Your task to perform on an android device: Open ESPN.com Image 0: 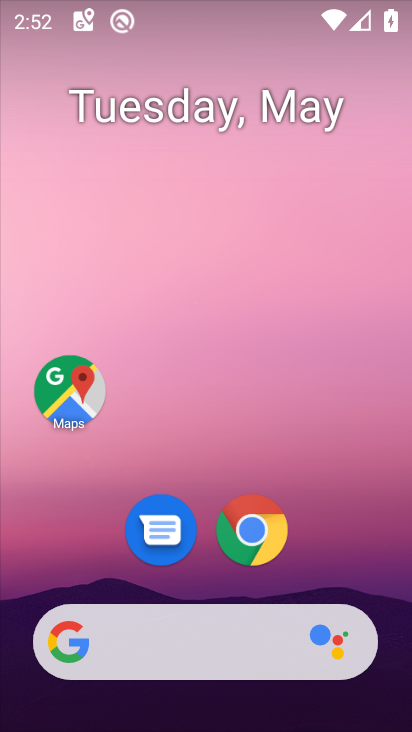
Step 0: click (264, 534)
Your task to perform on an android device: Open ESPN.com Image 1: 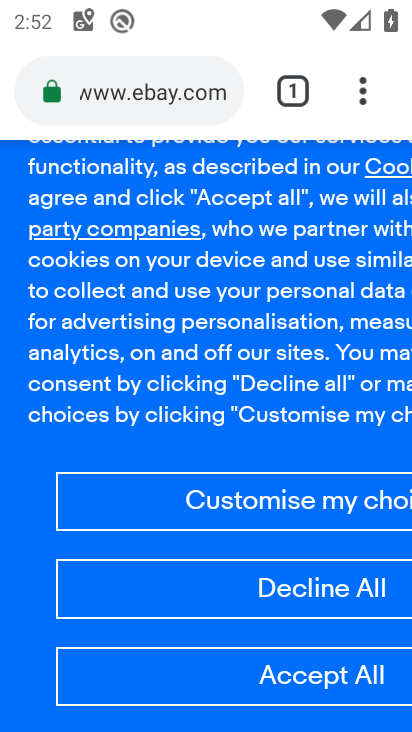
Step 1: click (286, 99)
Your task to perform on an android device: Open ESPN.com Image 2: 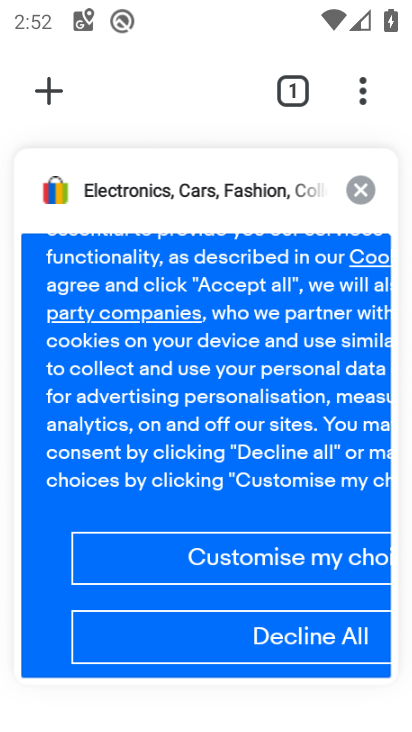
Step 2: click (53, 93)
Your task to perform on an android device: Open ESPN.com Image 3: 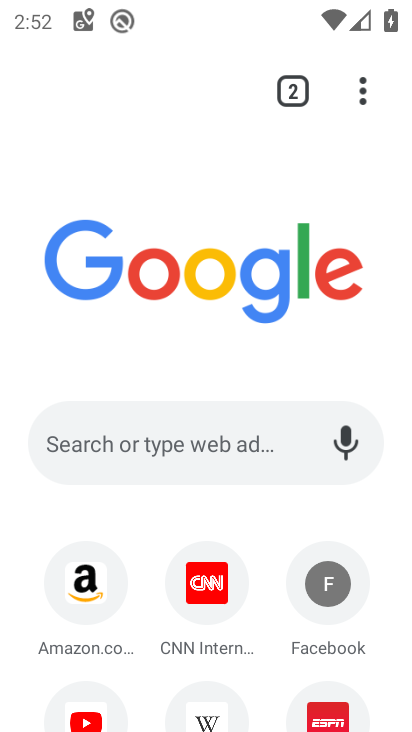
Step 3: drag from (0, 693) to (240, 289)
Your task to perform on an android device: Open ESPN.com Image 4: 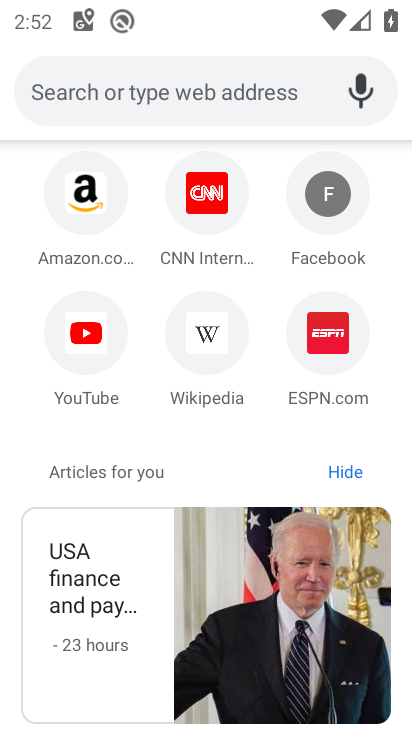
Step 4: click (312, 572)
Your task to perform on an android device: Open ESPN.com Image 5: 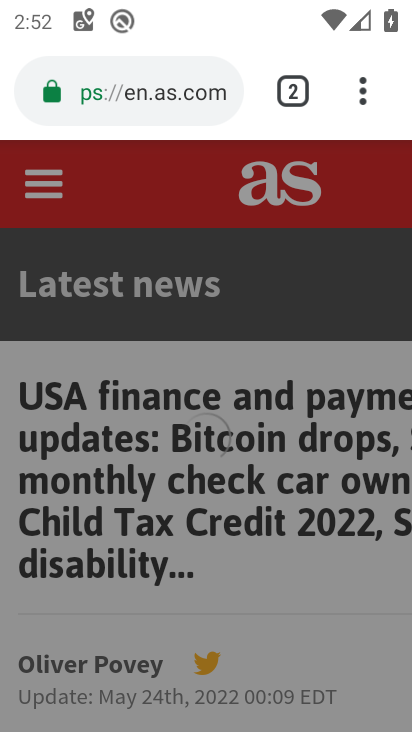
Step 5: task complete